Your task to perform on an android device: set an alarm Image 0: 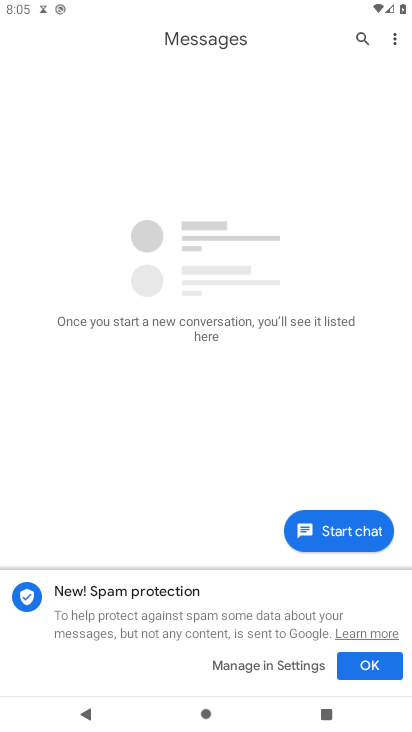
Step 0: press home button
Your task to perform on an android device: set an alarm Image 1: 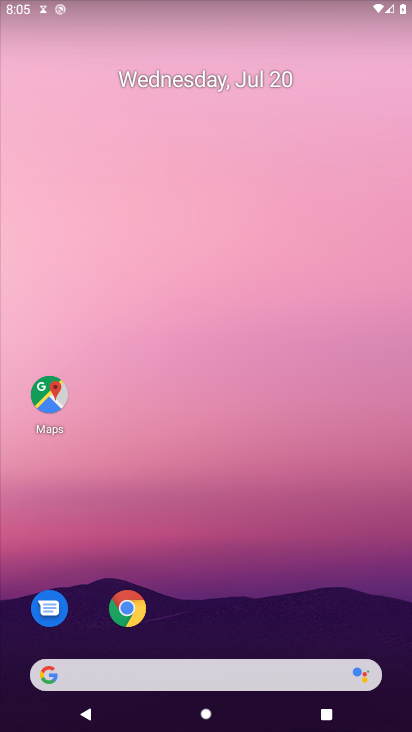
Step 1: drag from (179, 633) to (179, 6)
Your task to perform on an android device: set an alarm Image 2: 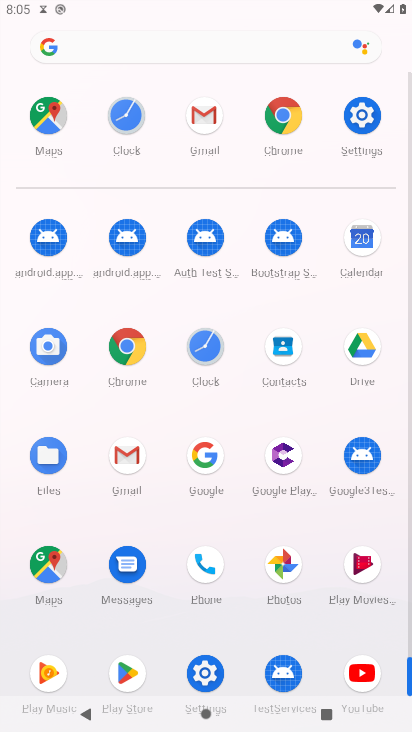
Step 2: click (213, 353)
Your task to perform on an android device: set an alarm Image 3: 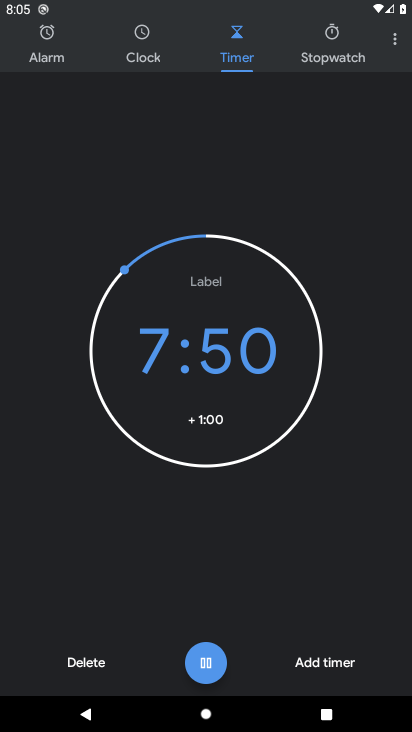
Step 3: click (44, 38)
Your task to perform on an android device: set an alarm Image 4: 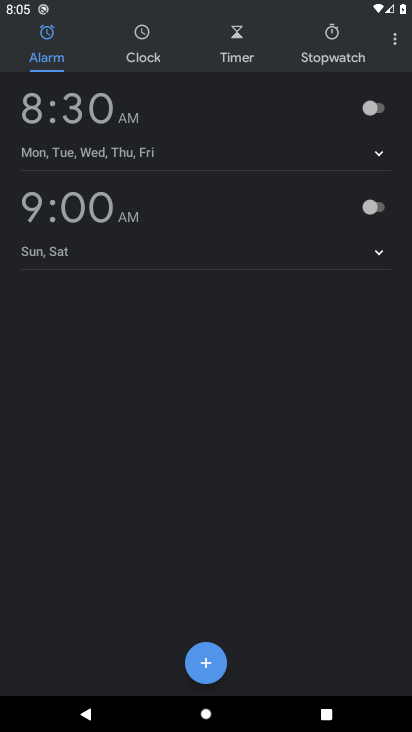
Step 4: click (387, 112)
Your task to perform on an android device: set an alarm Image 5: 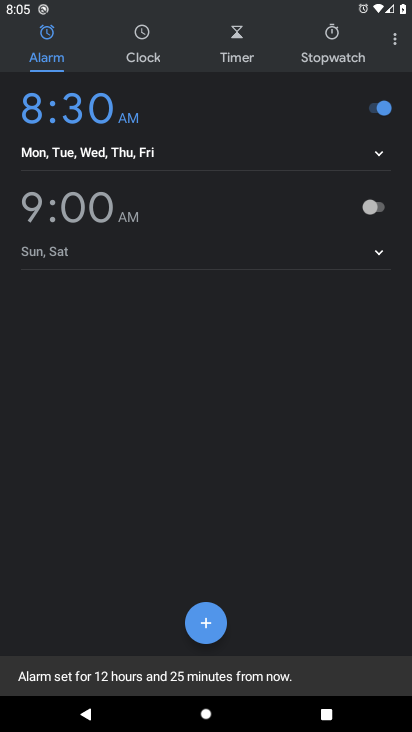
Step 5: click (378, 160)
Your task to perform on an android device: set an alarm Image 6: 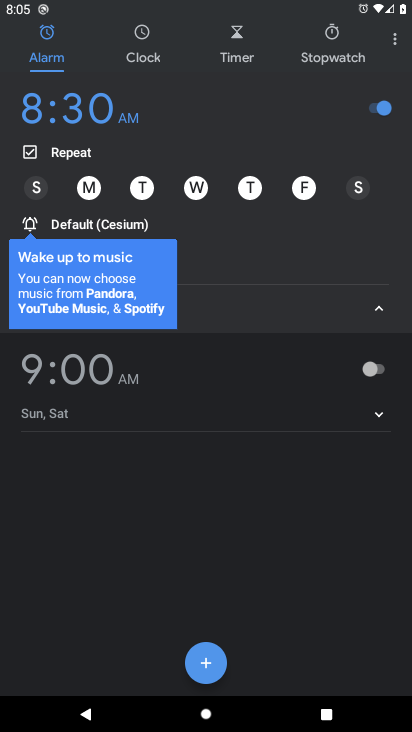
Step 6: click (39, 227)
Your task to perform on an android device: set an alarm Image 7: 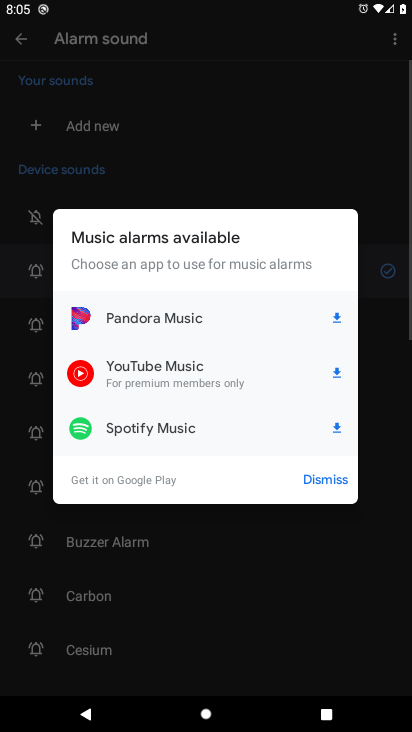
Step 7: click (339, 477)
Your task to perform on an android device: set an alarm Image 8: 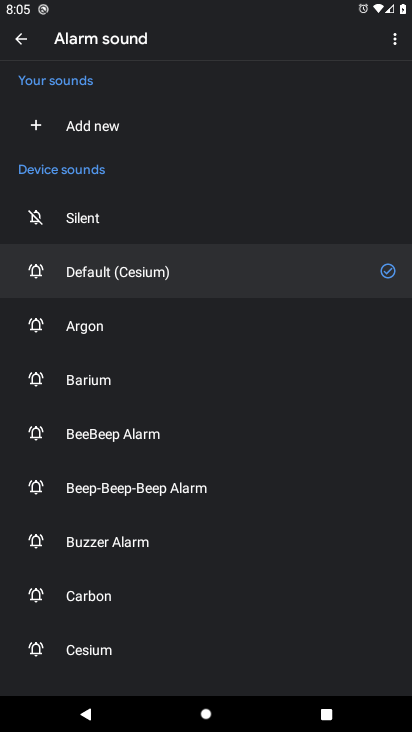
Step 8: click (92, 391)
Your task to perform on an android device: set an alarm Image 9: 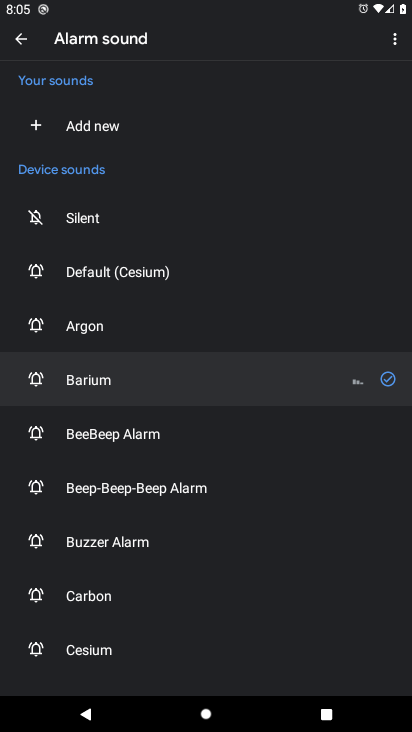
Step 9: click (29, 43)
Your task to perform on an android device: set an alarm Image 10: 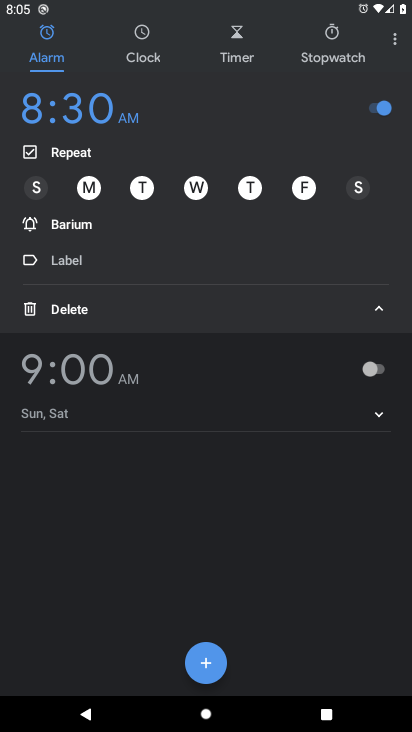
Step 10: task complete